Your task to perform on an android device: open a bookmark in the chrome app Image 0: 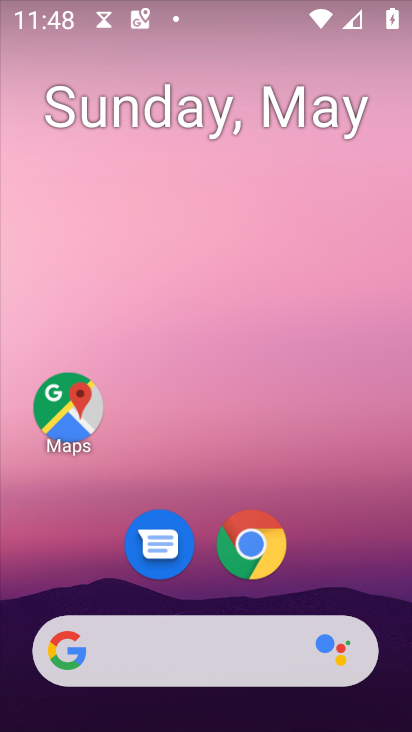
Step 0: click (267, 554)
Your task to perform on an android device: open a bookmark in the chrome app Image 1: 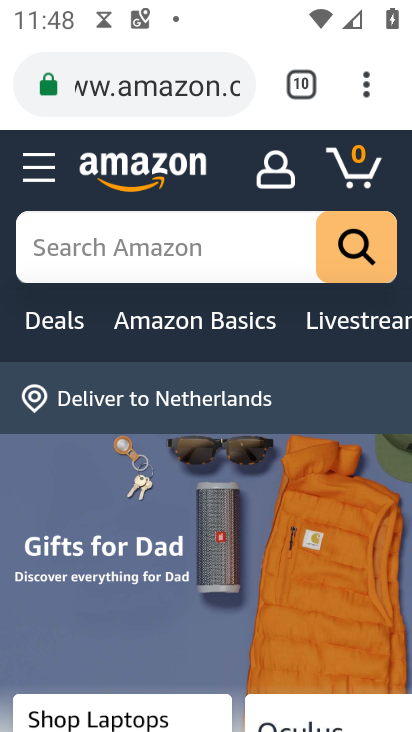
Step 1: click (365, 73)
Your task to perform on an android device: open a bookmark in the chrome app Image 2: 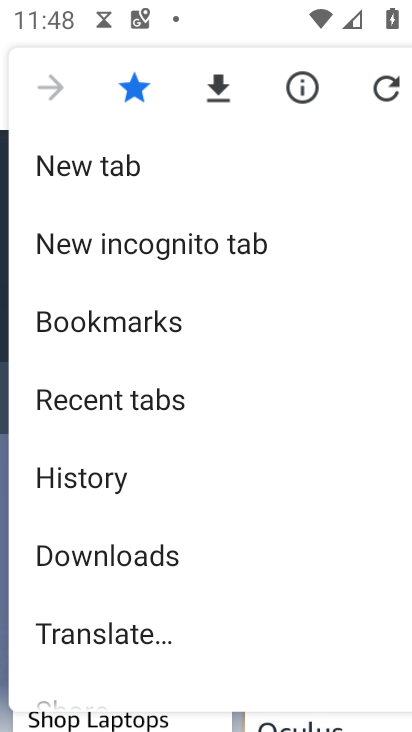
Step 2: click (123, 318)
Your task to perform on an android device: open a bookmark in the chrome app Image 3: 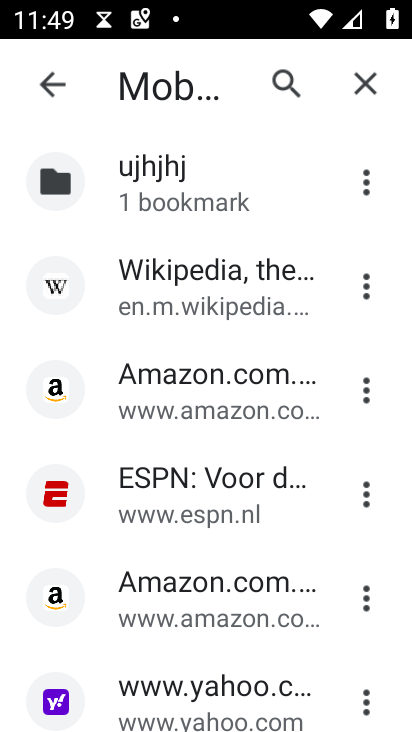
Step 3: task complete